Your task to perform on an android device: When is my next appointment? Image 0: 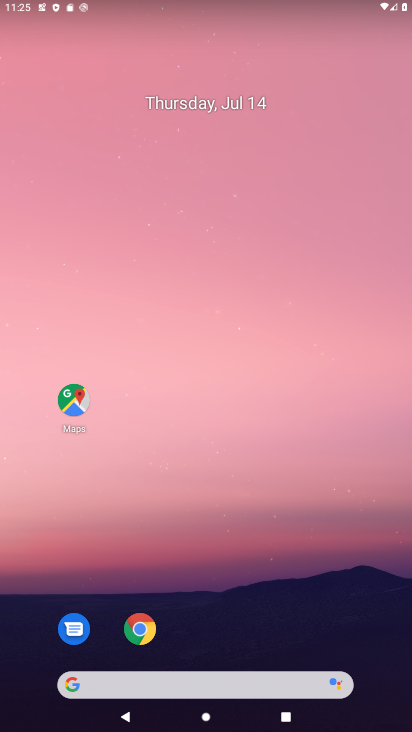
Step 0: press home button
Your task to perform on an android device: When is my next appointment? Image 1: 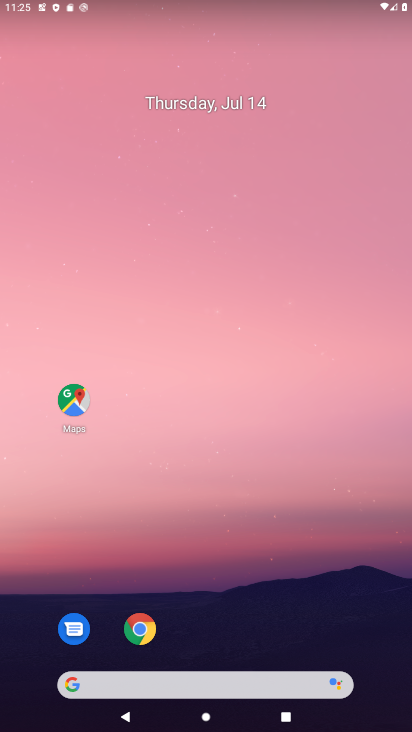
Step 1: drag from (237, 617) to (167, 166)
Your task to perform on an android device: When is my next appointment? Image 2: 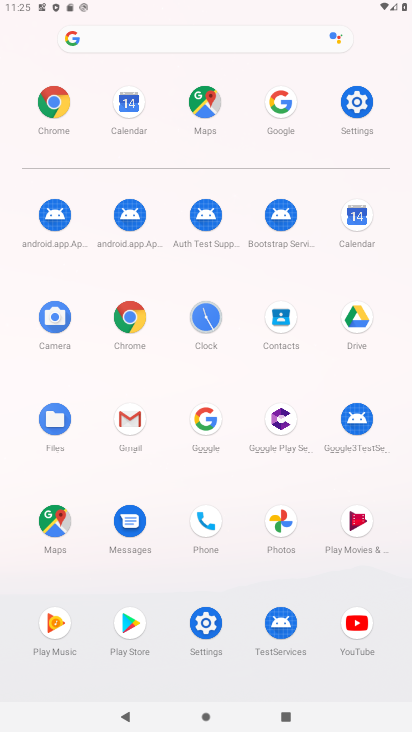
Step 2: click (359, 223)
Your task to perform on an android device: When is my next appointment? Image 3: 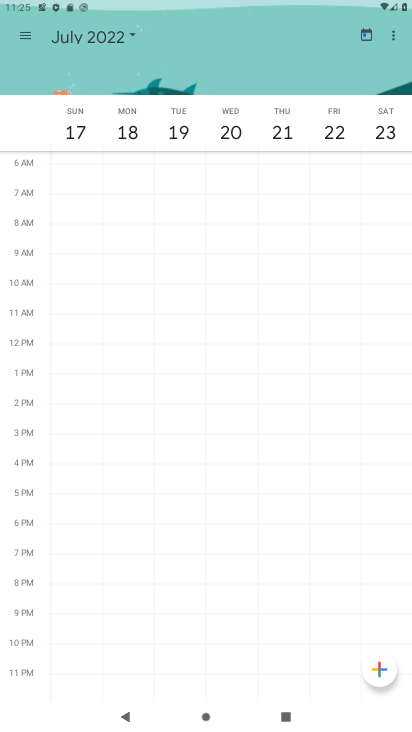
Step 3: click (20, 38)
Your task to perform on an android device: When is my next appointment? Image 4: 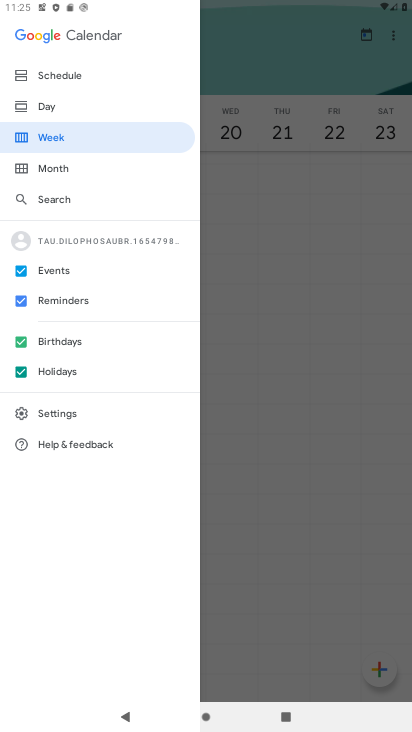
Step 4: click (48, 75)
Your task to perform on an android device: When is my next appointment? Image 5: 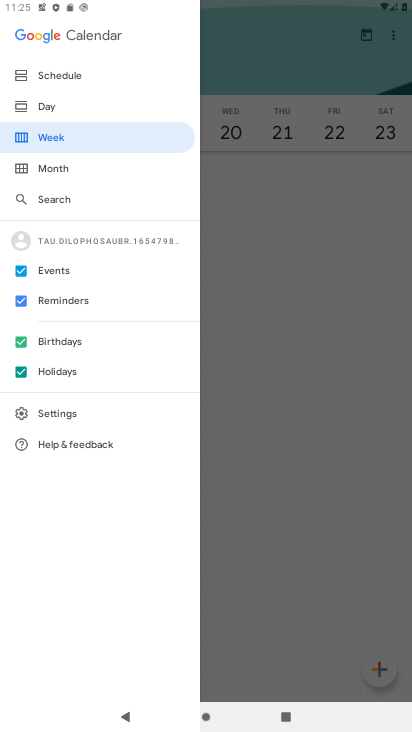
Step 5: click (48, 75)
Your task to perform on an android device: When is my next appointment? Image 6: 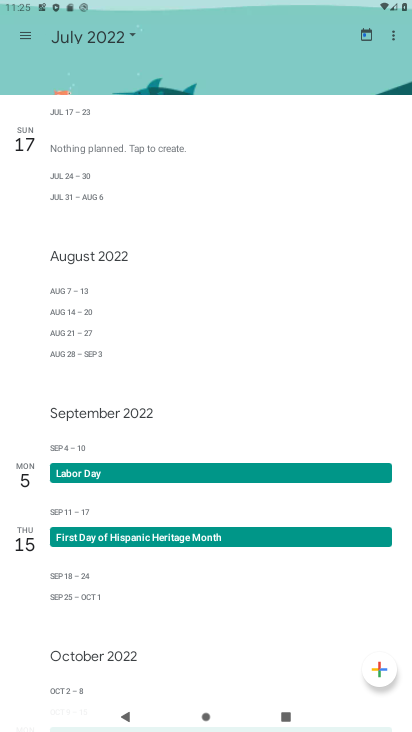
Step 6: task complete